Your task to perform on an android device: create a new album in the google photos Image 0: 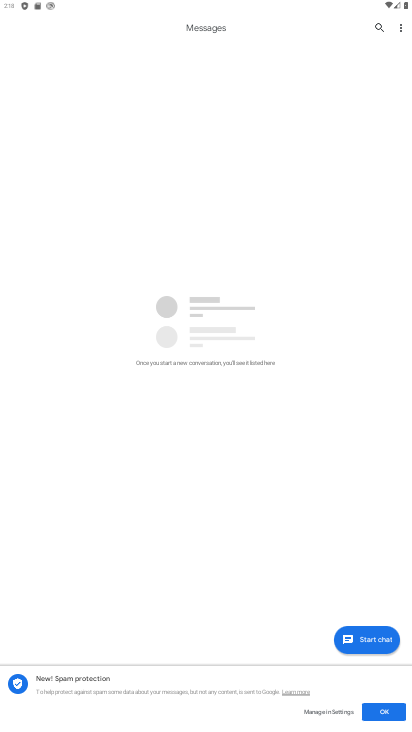
Step 0: press home button
Your task to perform on an android device: create a new album in the google photos Image 1: 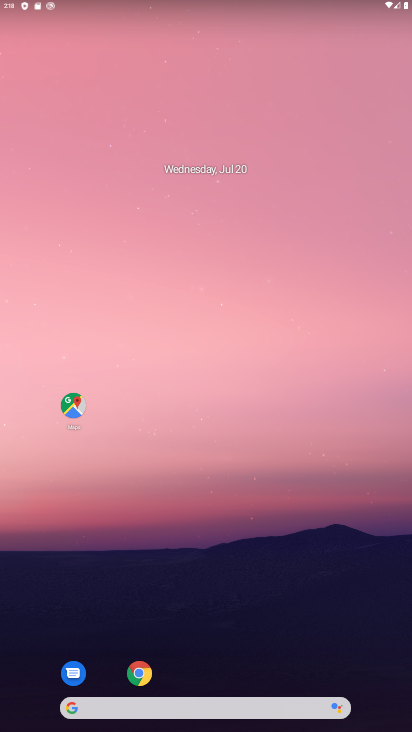
Step 1: drag from (391, 351) to (411, 35)
Your task to perform on an android device: create a new album in the google photos Image 2: 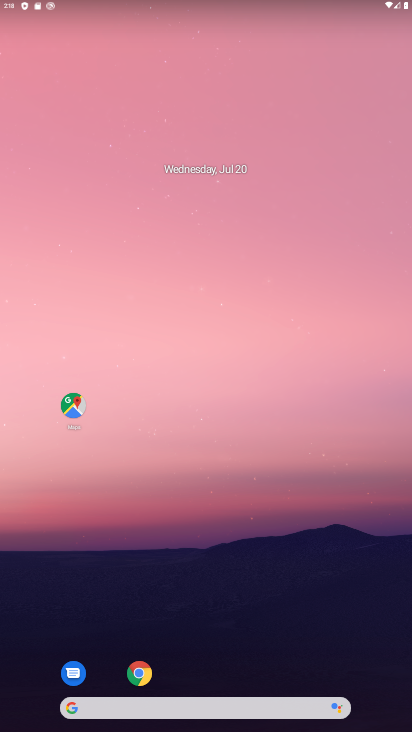
Step 2: drag from (229, 617) to (261, 134)
Your task to perform on an android device: create a new album in the google photos Image 3: 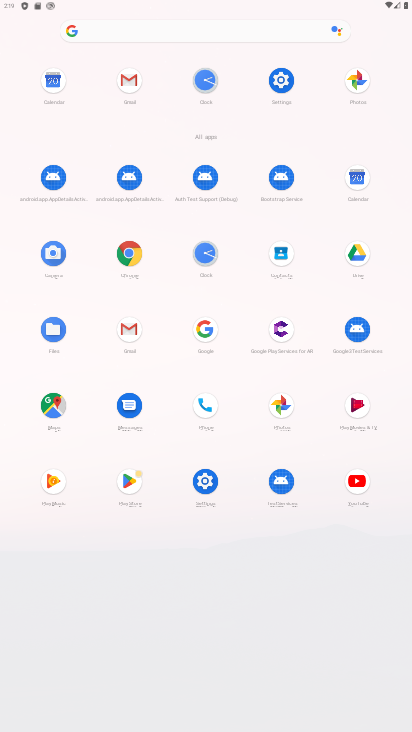
Step 3: click (285, 400)
Your task to perform on an android device: create a new album in the google photos Image 4: 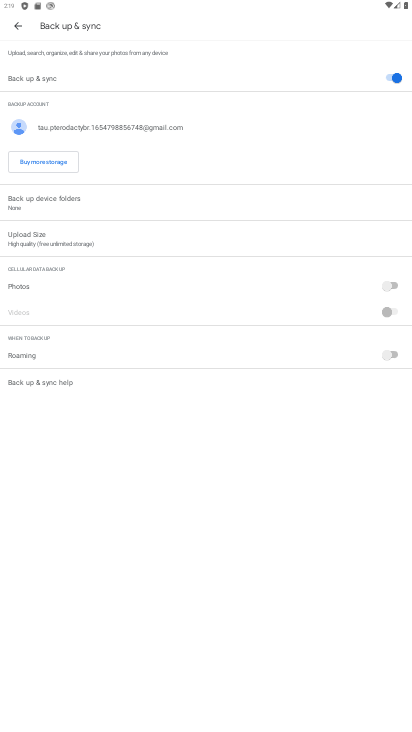
Step 4: click (20, 26)
Your task to perform on an android device: create a new album in the google photos Image 5: 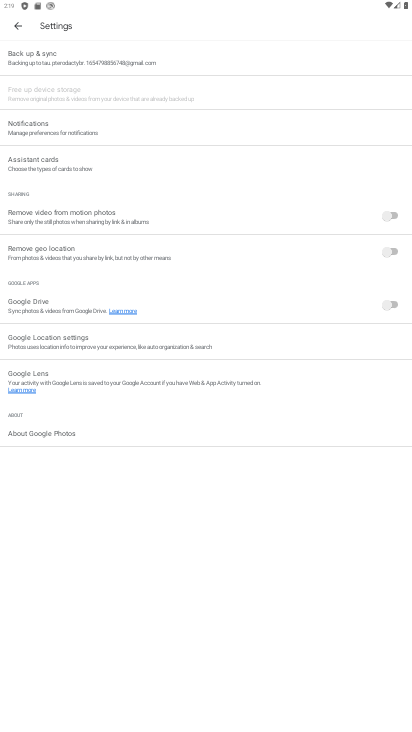
Step 5: click (19, 23)
Your task to perform on an android device: create a new album in the google photos Image 6: 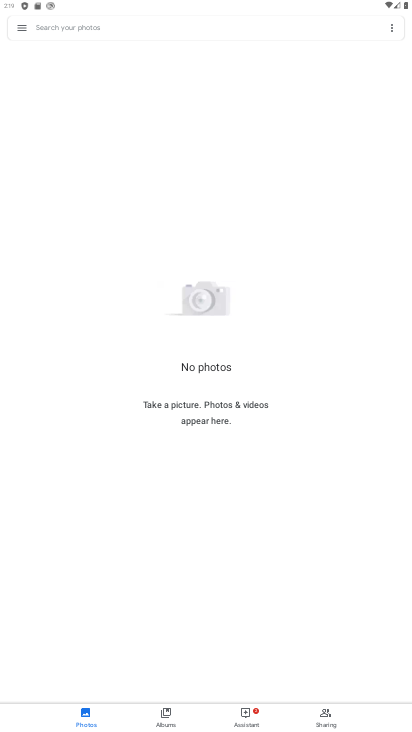
Step 6: task complete